Your task to perform on an android device: clear history in the chrome app Image 0: 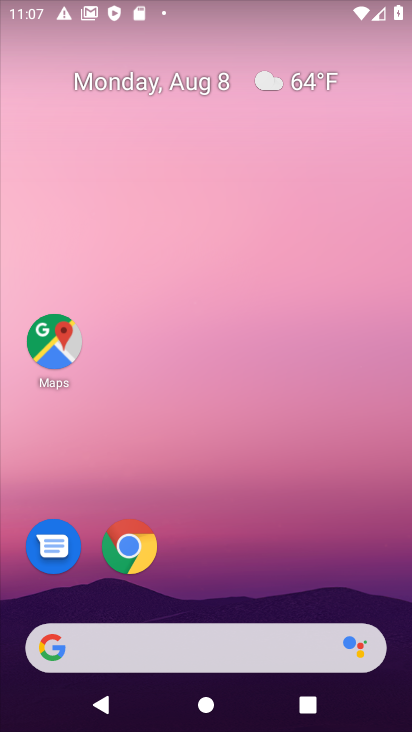
Step 0: press home button
Your task to perform on an android device: clear history in the chrome app Image 1: 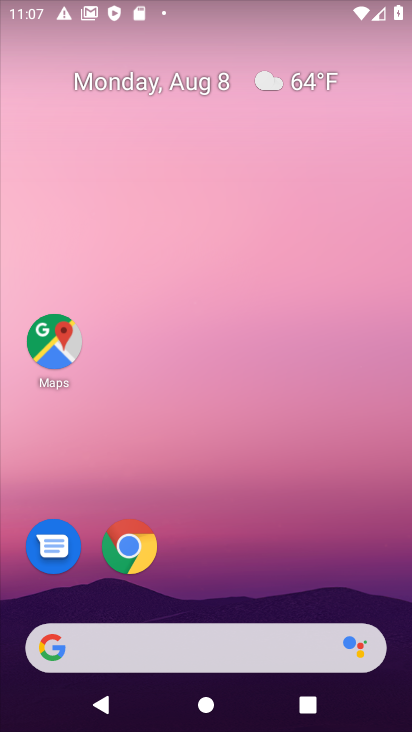
Step 1: drag from (215, 605) to (179, 18)
Your task to perform on an android device: clear history in the chrome app Image 2: 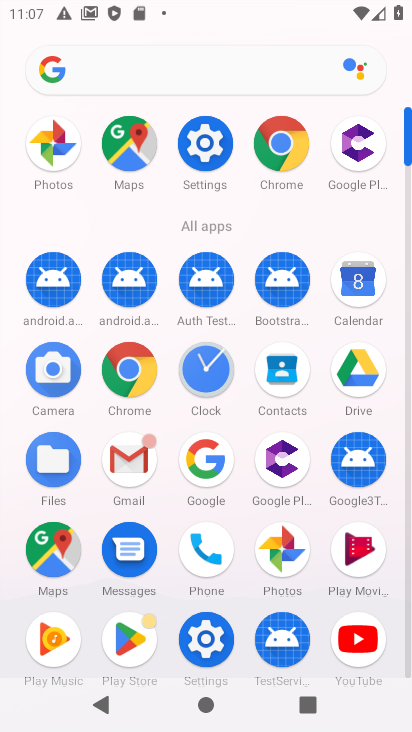
Step 2: click (126, 364)
Your task to perform on an android device: clear history in the chrome app Image 3: 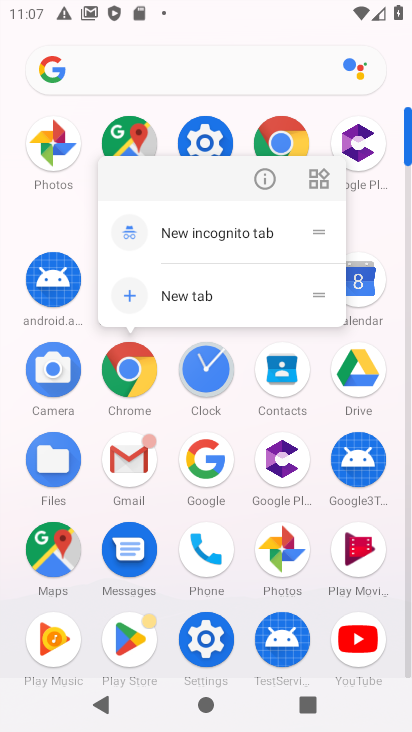
Step 3: click (122, 363)
Your task to perform on an android device: clear history in the chrome app Image 4: 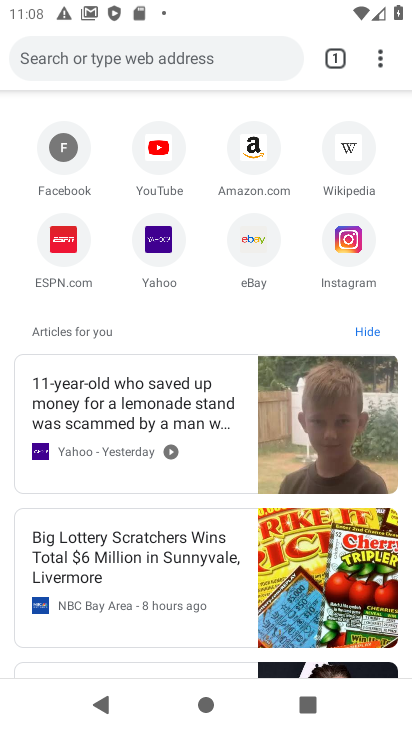
Step 4: click (377, 53)
Your task to perform on an android device: clear history in the chrome app Image 5: 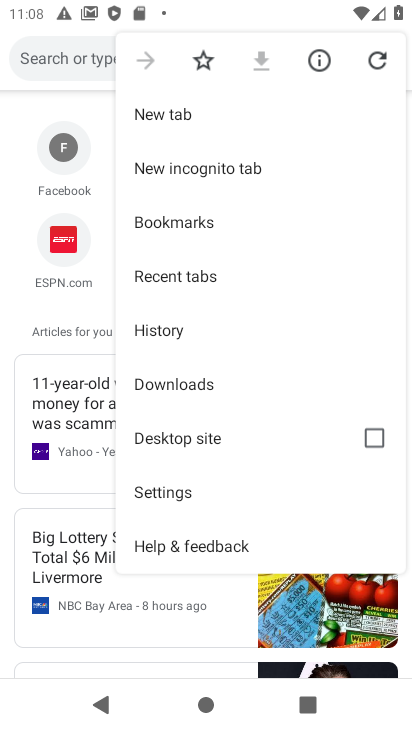
Step 5: click (189, 330)
Your task to perform on an android device: clear history in the chrome app Image 6: 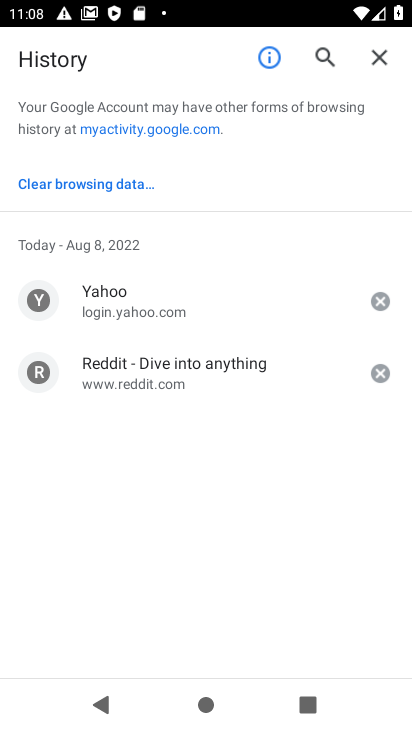
Step 6: click (81, 179)
Your task to perform on an android device: clear history in the chrome app Image 7: 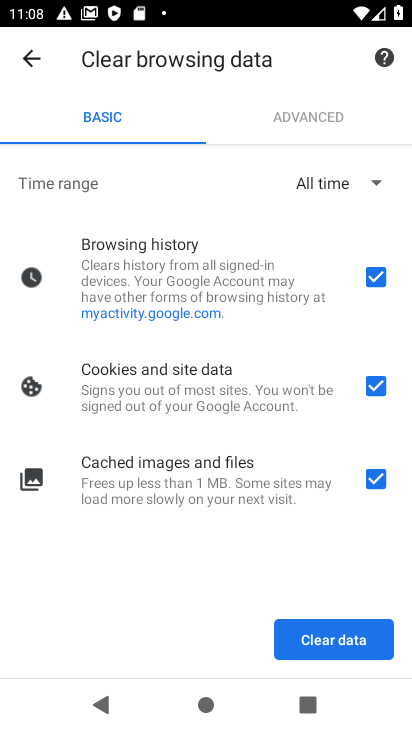
Step 7: click (336, 642)
Your task to perform on an android device: clear history in the chrome app Image 8: 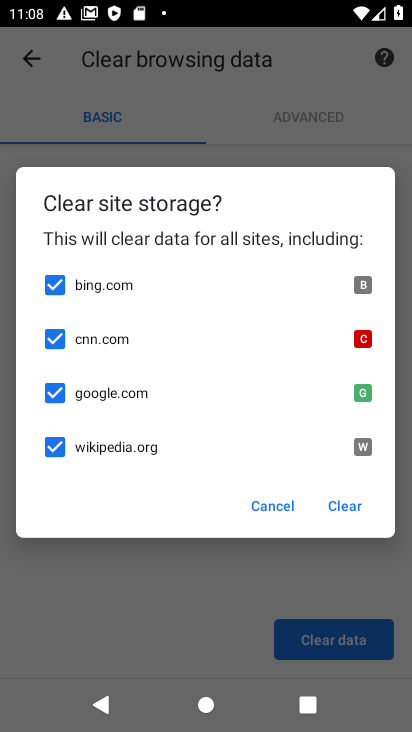
Step 8: click (345, 511)
Your task to perform on an android device: clear history in the chrome app Image 9: 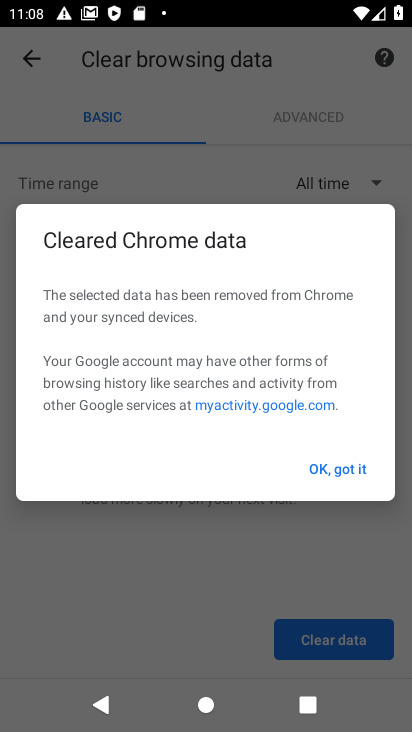
Step 9: click (344, 470)
Your task to perform on an android device: clear history in the chrome app Image 10: 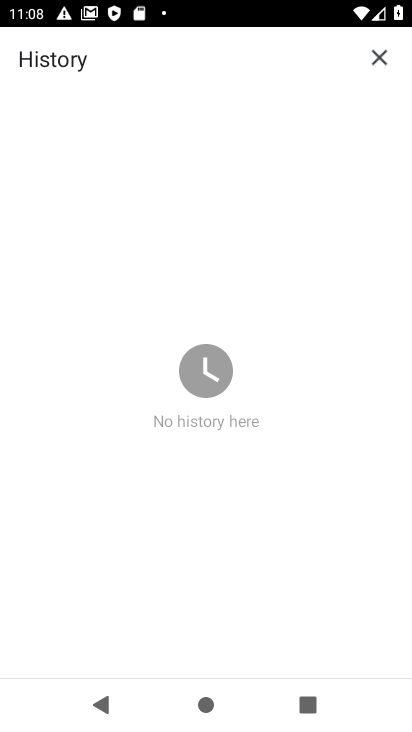
Step 10: task complete